Your task to perform on an android device: turn pop-ups on in chrome Image 0: 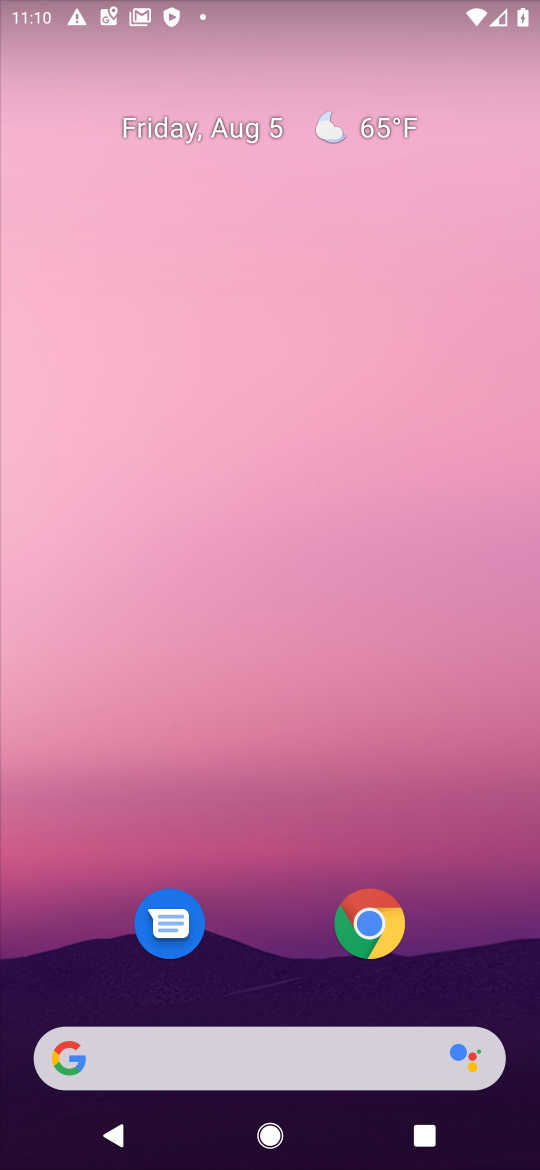
Step 0: drag from (227, 1063) to (402, 230)
Your task to perform on an android device: turn pop-ups on in chrome Image 1: 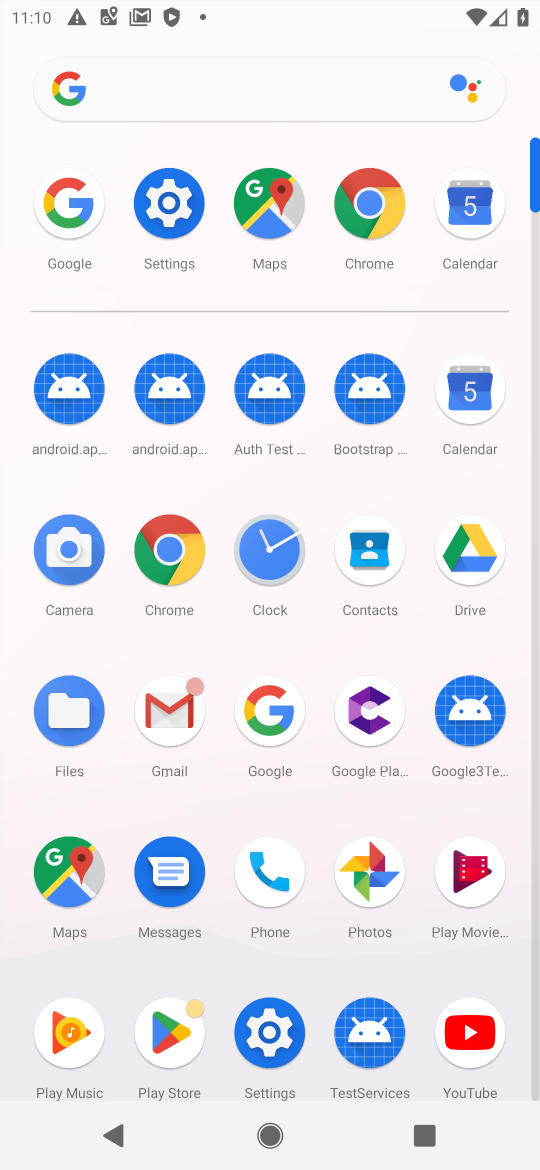
Step 1: click (359, 184)
Your task to perform on an android device: turn pop-ups on in chrome Image 2: 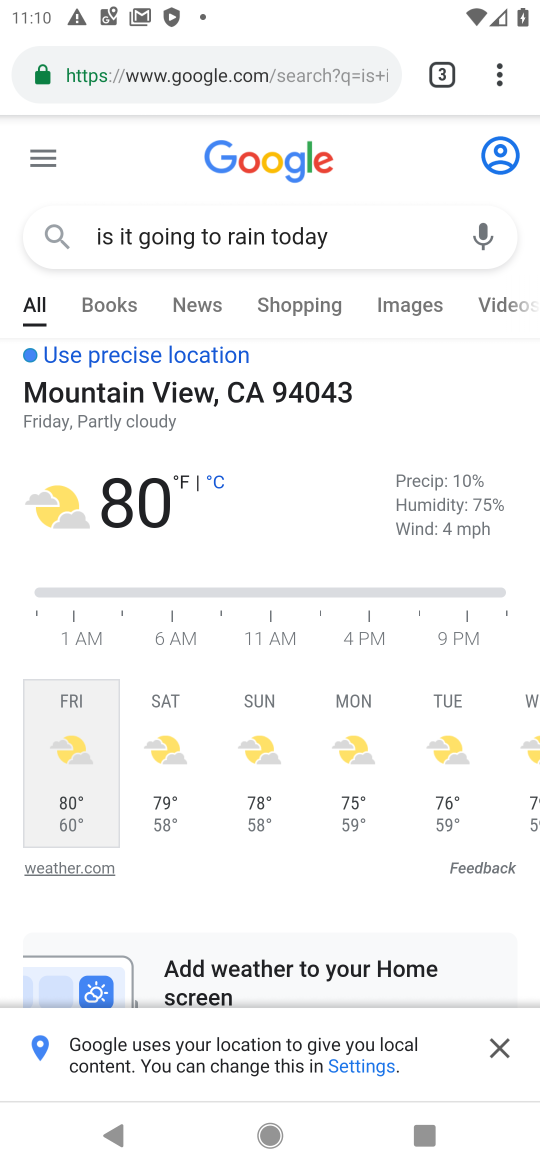
Step 2: click (487, 64)
Your task to perform on an android device: turn pop-ups on in chrome Image 3: 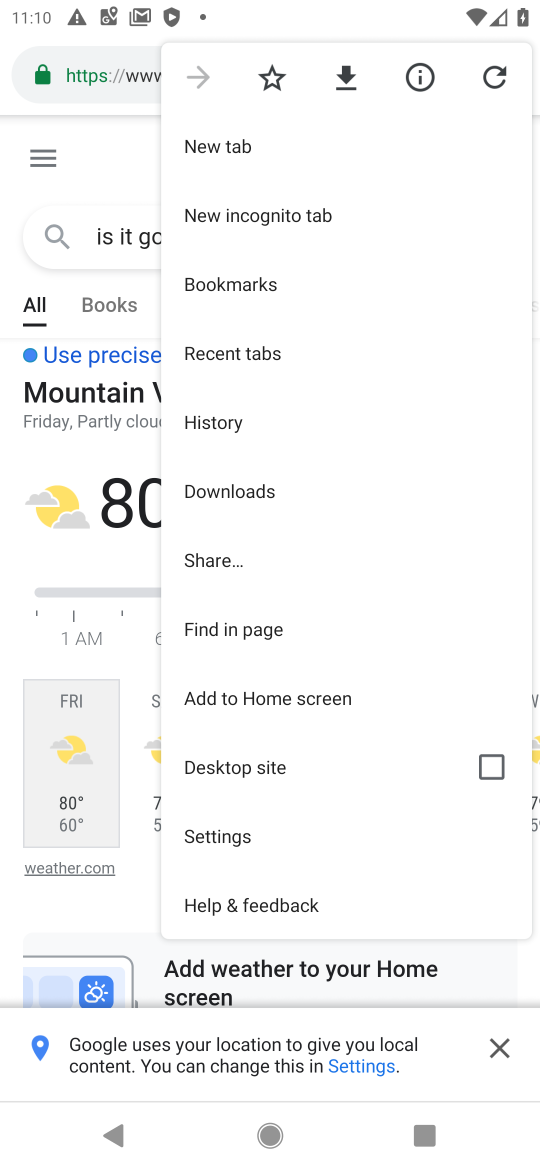
Step 3: click (284, 842)
Your task to perform on an android device: turn pop-ups on in chrome Image 4: 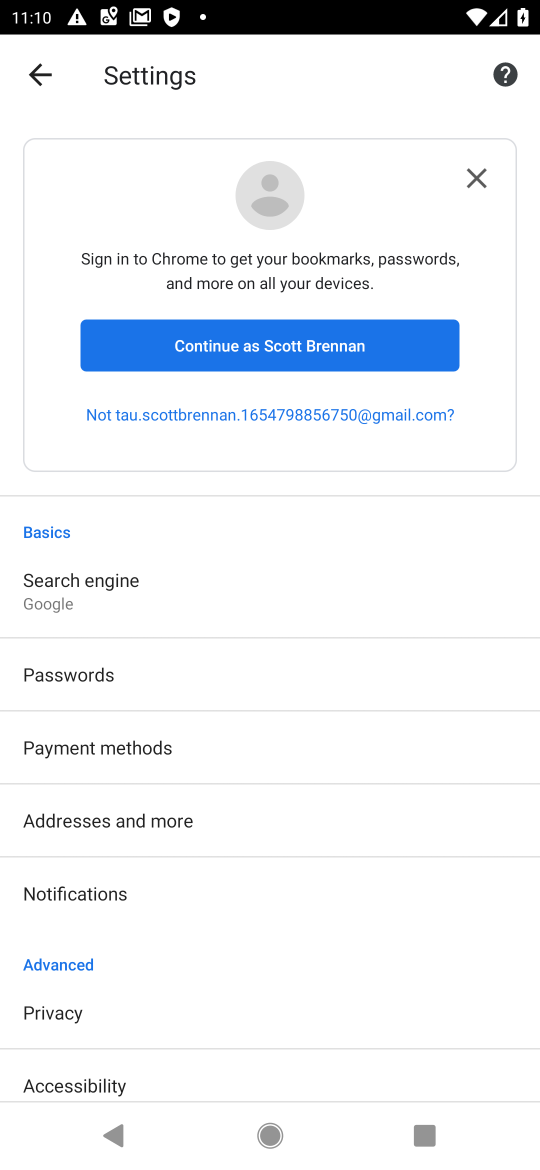
Step 4: drag from (249, 884) to (300, 442)
Your task to perform on an android device: turn pop-ups on in chrome Image 5: 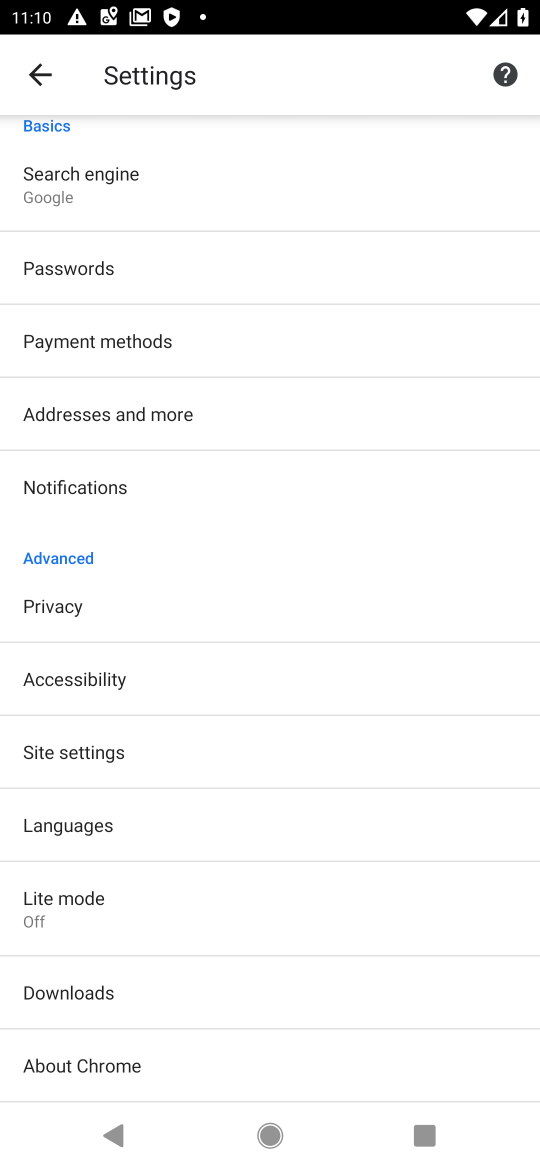
Step 5: click (156, 746)
Your task to perform on an android device: turn pop-ups on in chrome Image 6: 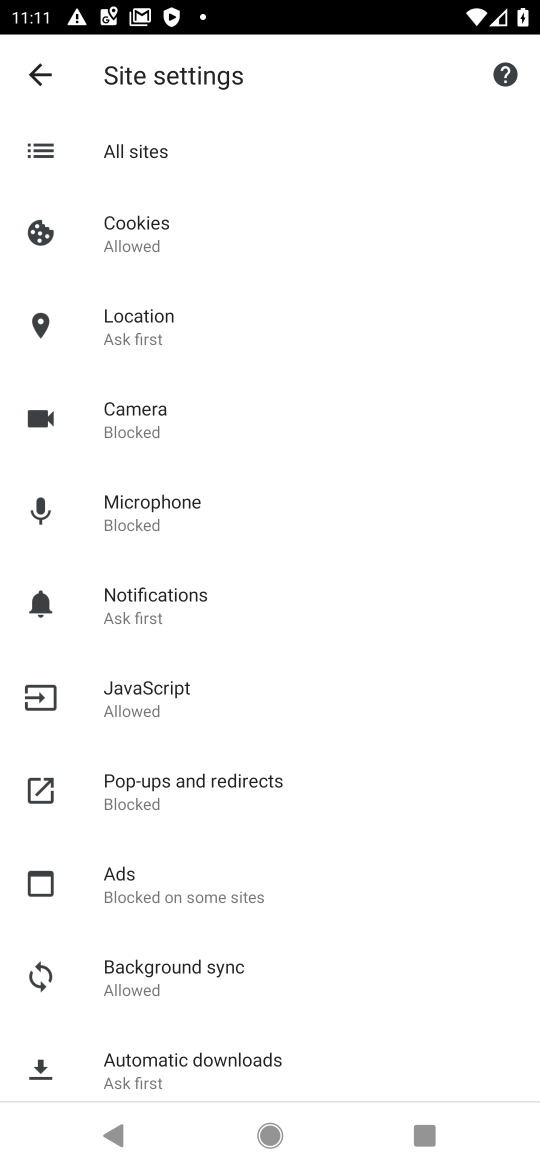
Step 6: click (256, 803)
Your task to perform on an android device: turn pop-ups on in chrome Image 7: 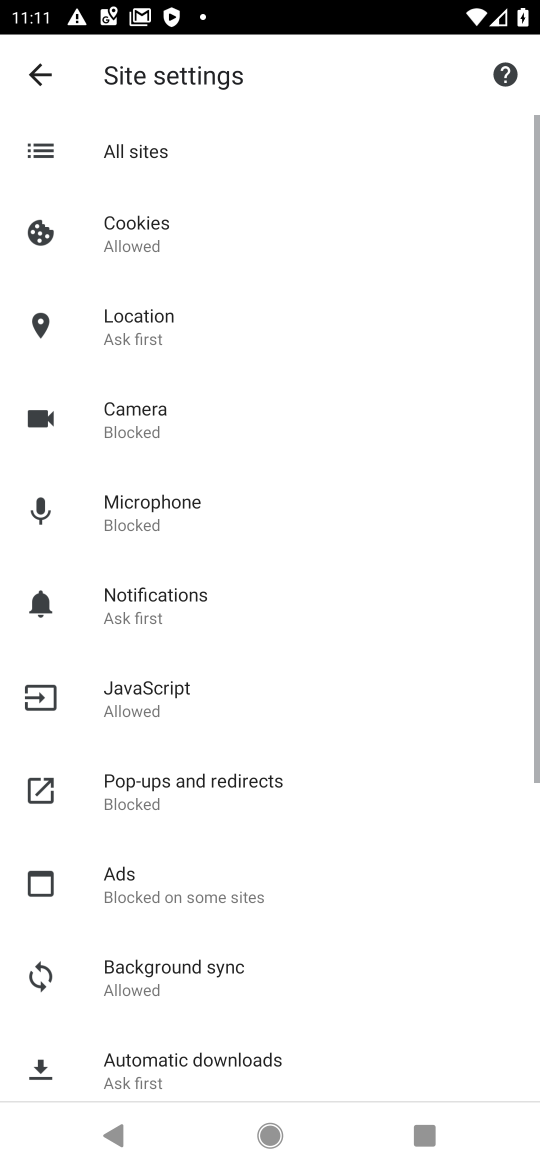
Step 7: click (256, 803)
Your task to perform on an android device: turn pop-ups on in chrome Image 8: 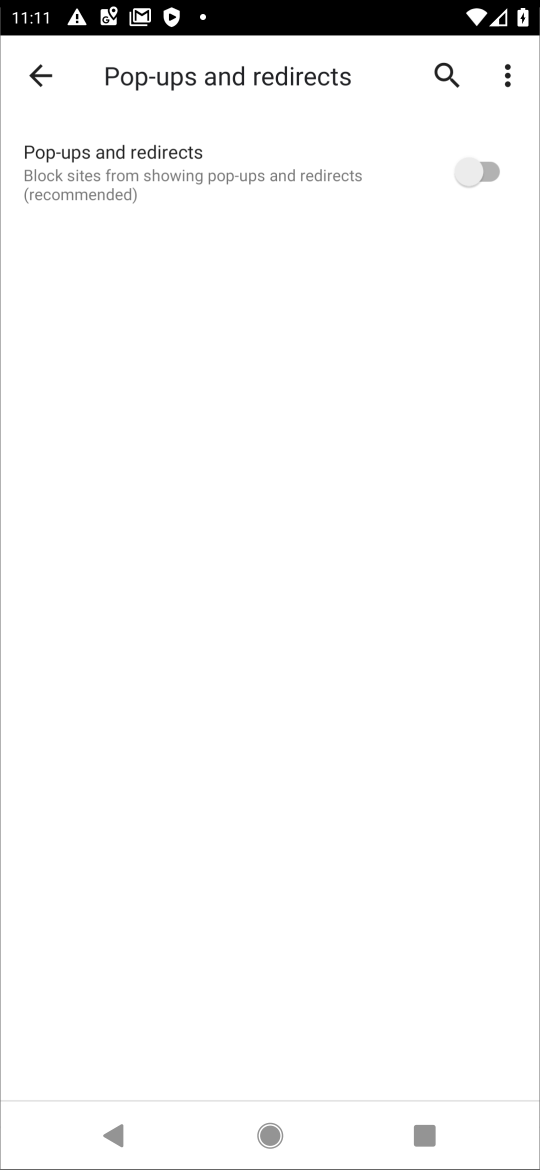
Step 8: click (256, 803)
Your task to perform on an android device: turn pop-ups on in chrome Image 9: 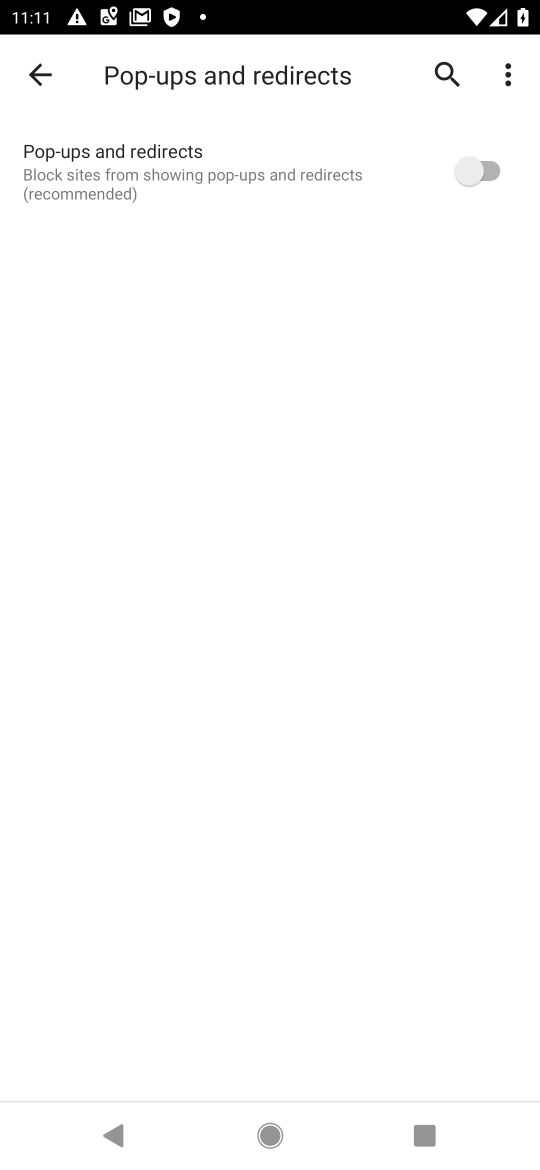
Step 9: click (494, 168)
Your task to perform on an android device: turn pop-ups on in chrome Image 10: 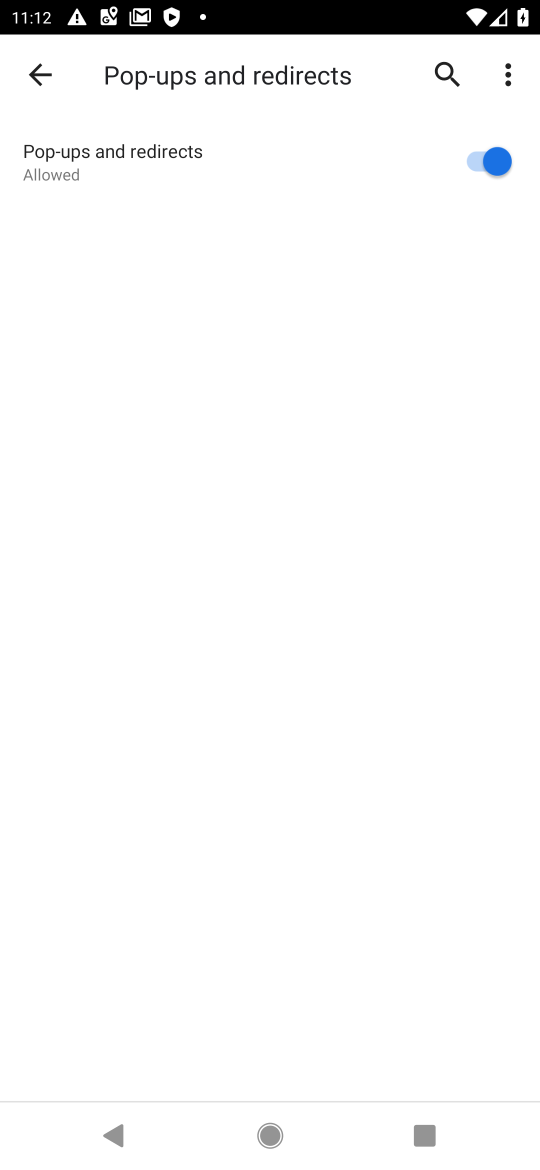
Step 10: task complete